Your task to perform on an android device: check android version Image 0: 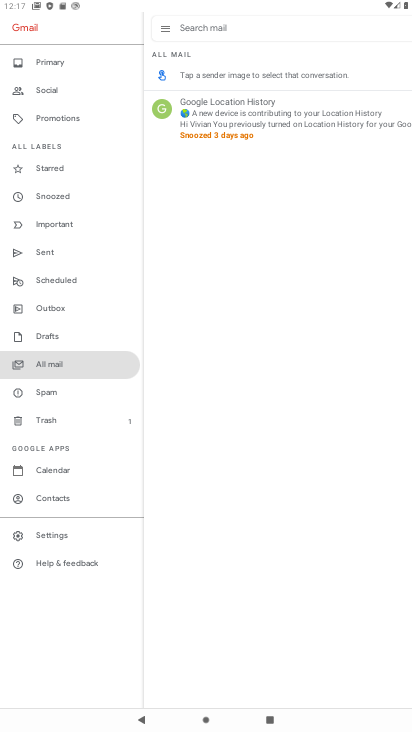
Step 0: press home button
Your task to perform on an android device: check android version Image 1: 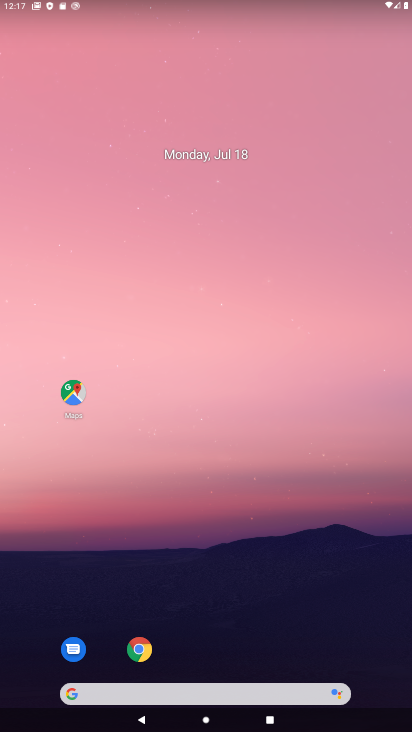
Step 1: drag from (296, 646) to (274, 177)
Your task to perform on an android device: check android version Image 2: 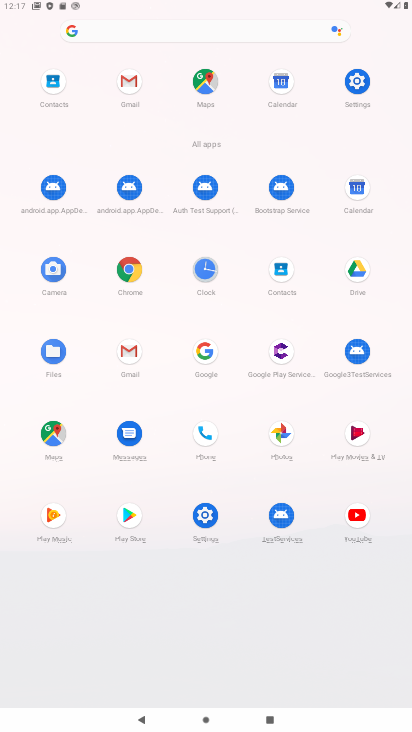
Step 2: click (205, 516)
Your task to perform on an android device: check android version Image 3: 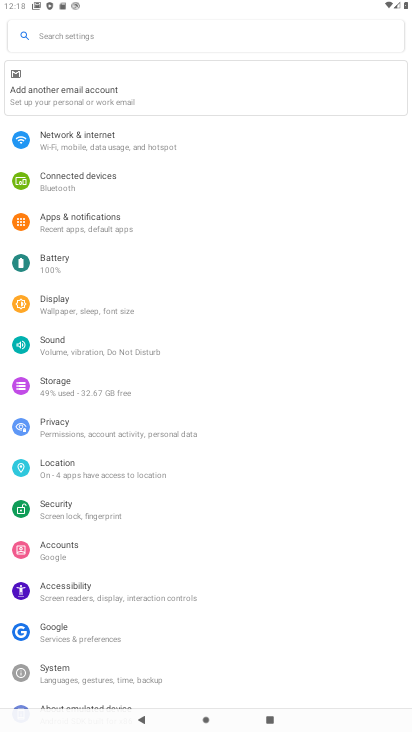
Step 3: drag from (176, 642) to (228, 323)
Your task to perform on an android device: check android version Image 4: 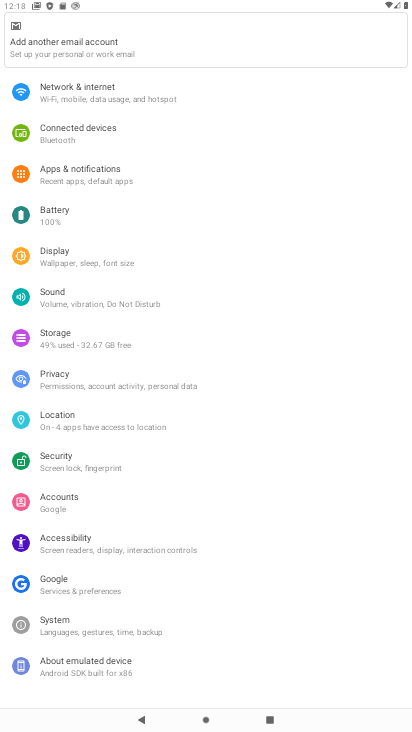
Step 4: click (102, 665)
Your task to perform on an android device: check android version Image 5: 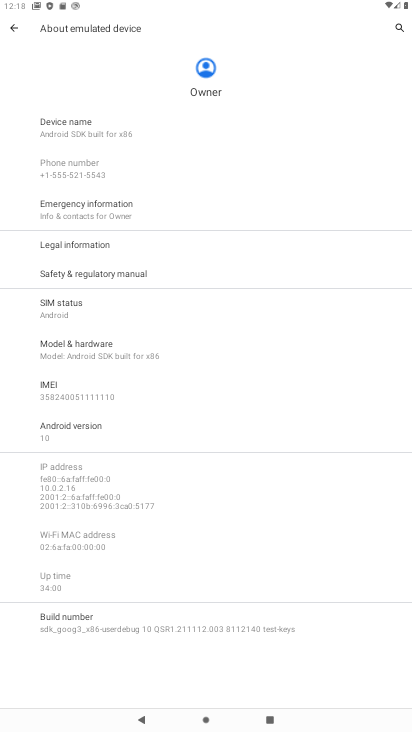
Step 5: click (58, 429)
Your task to perform on an android device: check android version Image 6: 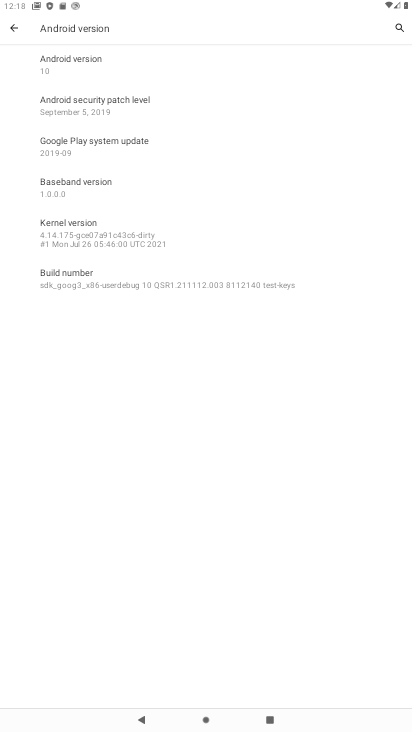
Step 6: task complete